Your task to perform on an android device: Show me popular games on the Play Store Image 0: 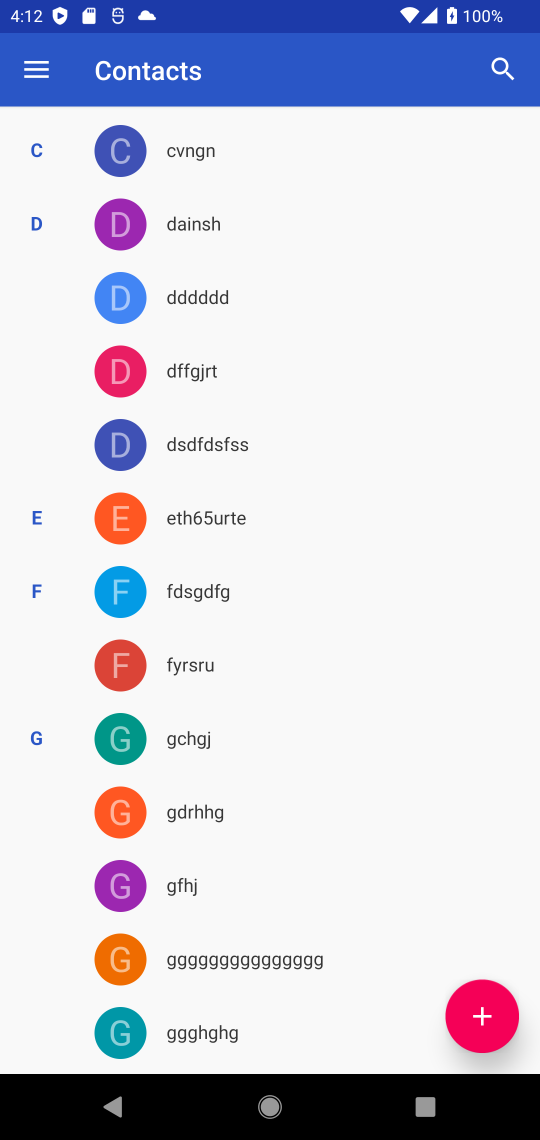
Step 0: press home button
Your task to perform on an android device: Show me popular games on the Play Store Image 1: 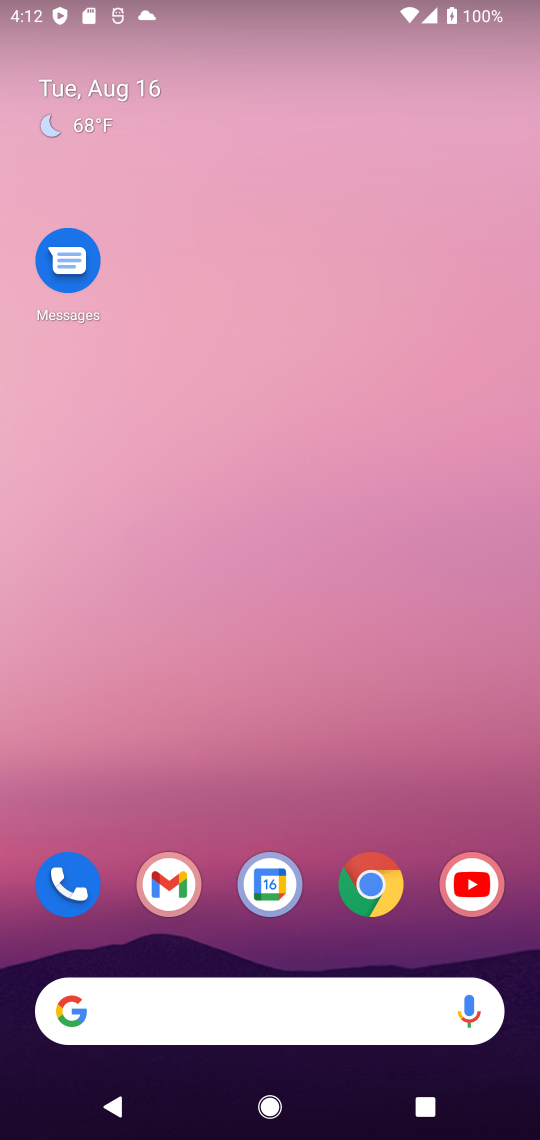
Step 1: drag from (59, 1042) to (133, 233)
Your task to perform on an android device: Show me popular games on the Play Store Image 2: 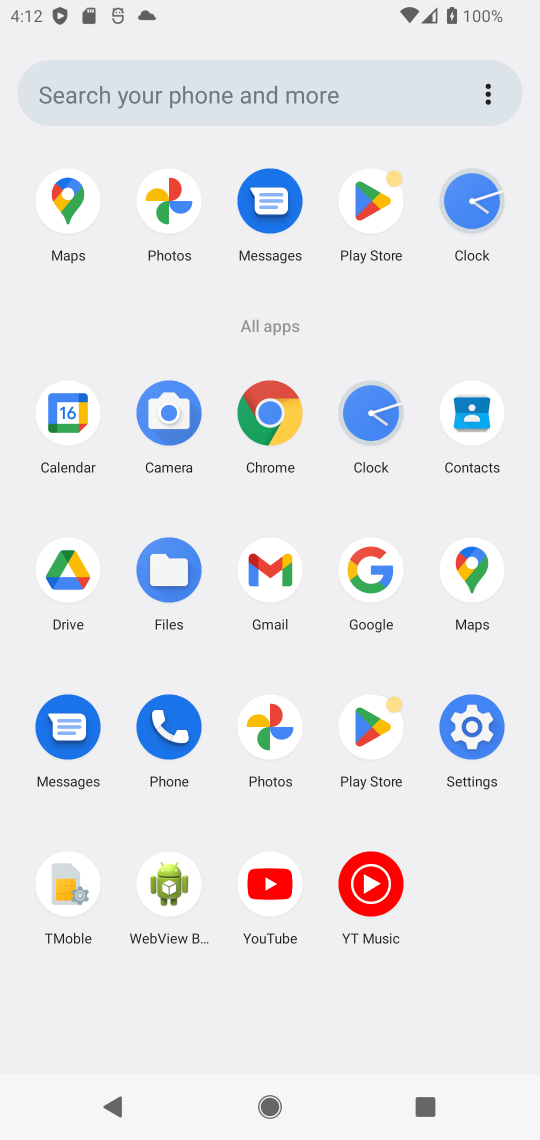
Step 2: click (387, 736)
Your task to perform on an android device: Show me popular games on the Play Store Image 3: 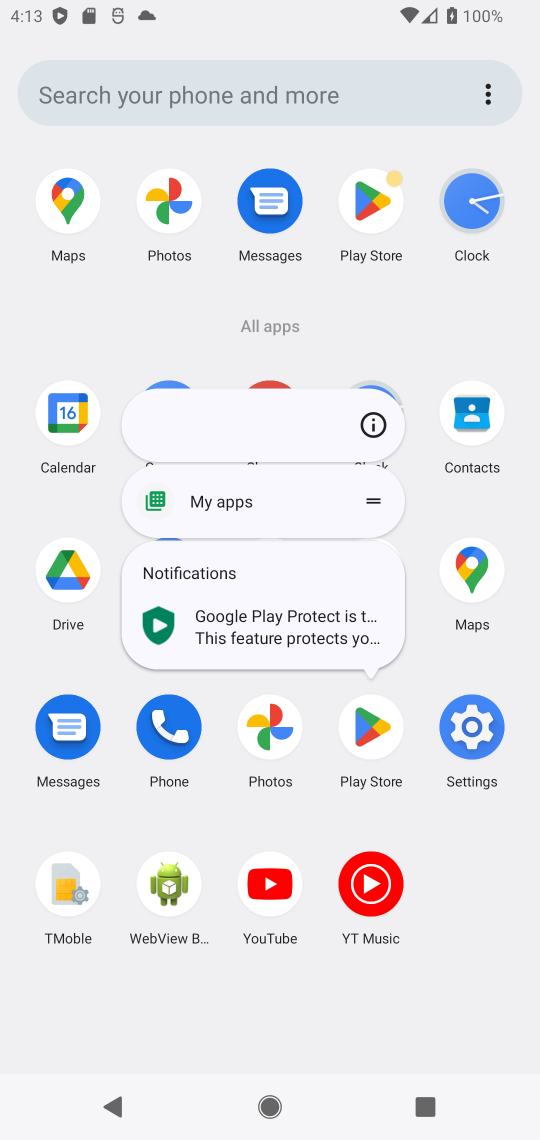
Step 3: task complete